Your task to perform on an android device: all mails in gmail Image 0: 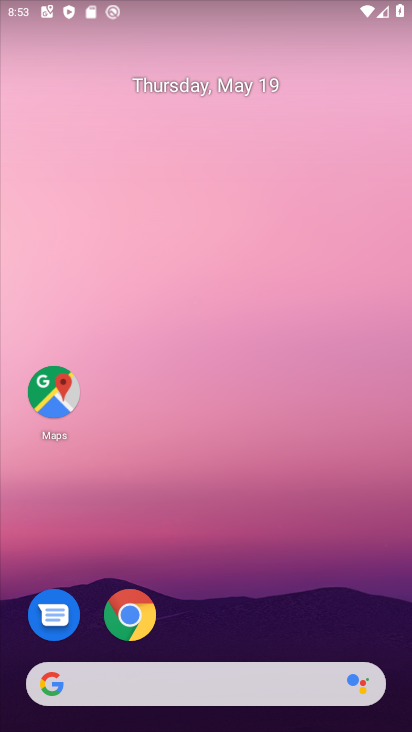
Step 0: press home button
Your task to perform on an android device: all mails in gmail Image 1: 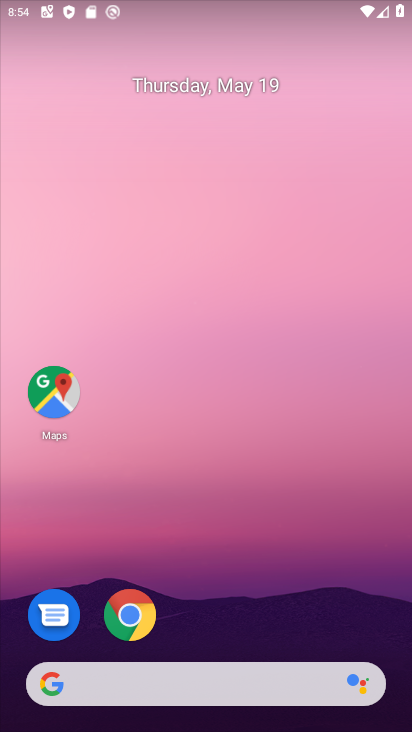
Step 1: drag from (312, 525) to (247, 6)
Your task to perform on an android device: all mails in gmail Image 2: 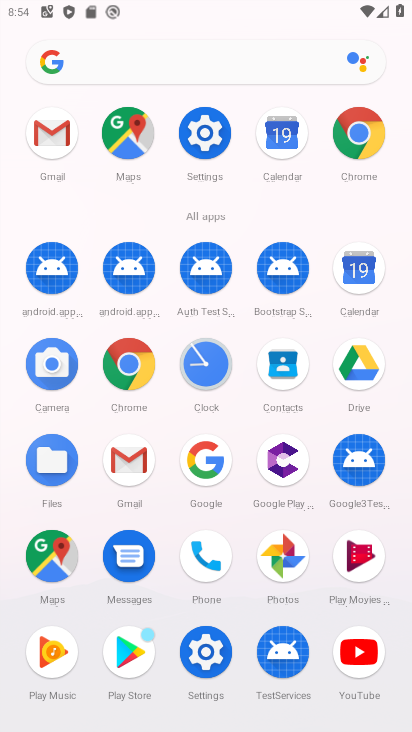
Step 2: click (58, 154)
Your task to perform on an android device: all mails in gmail Image 3: 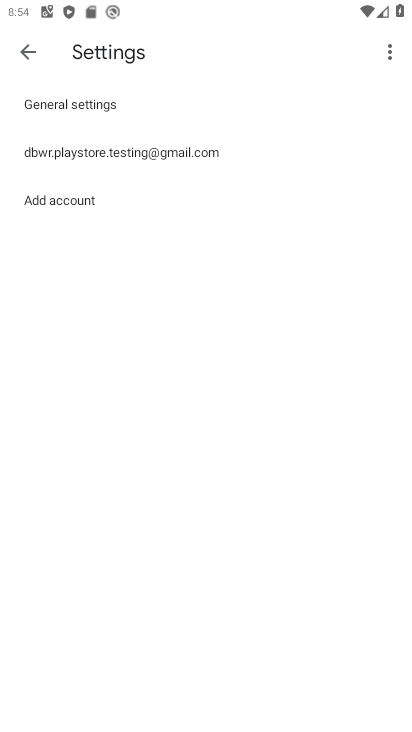
Step 3: click (35, 65)
Your task to perform on an android device: all mails in gmail Image 4: 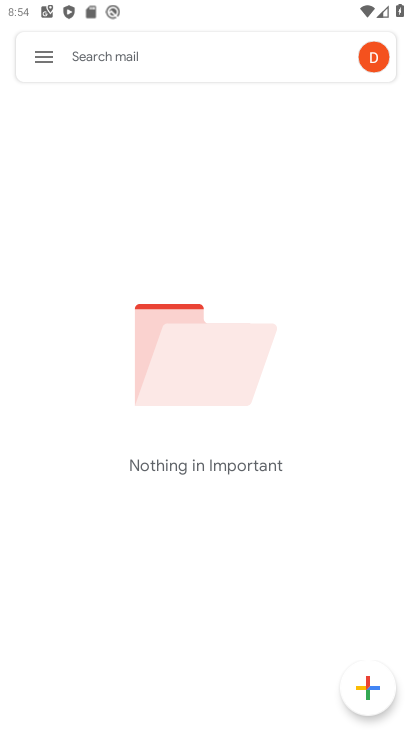
Step 4: click (35, 65)
Your task to perform on an android device: all mails in gmail Image 5: 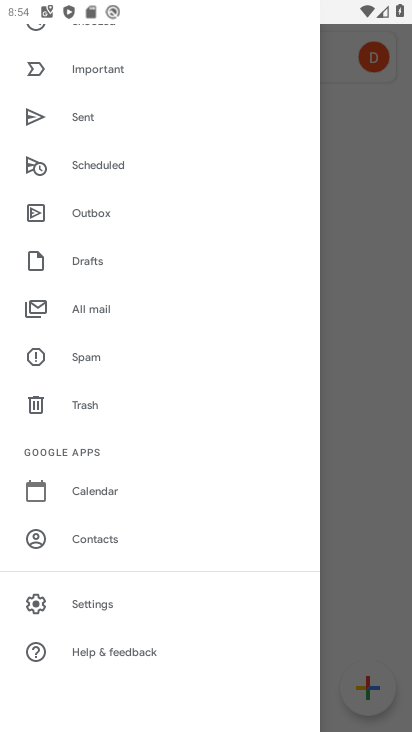
Step 5: drag from (121, 167) to (125, 301)
Your task to perform on an android device: all mails in gmail Image 6: 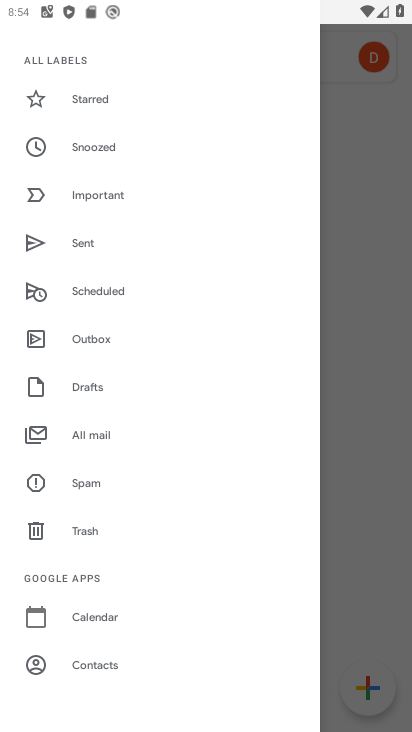
Step 6: click (112, 439)
Your task to perform on an android device: all mails in gmail Image 7: 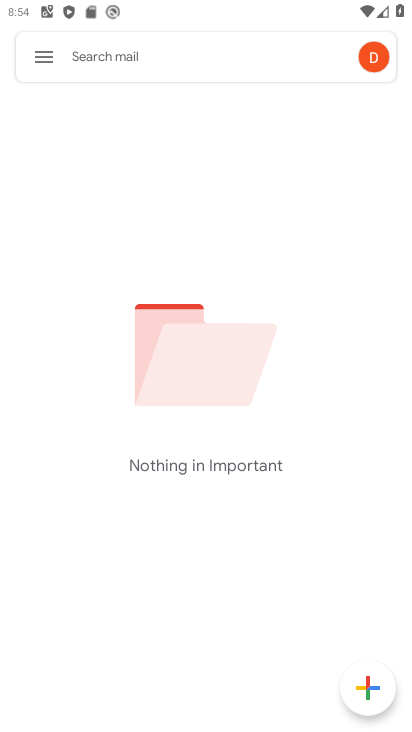
Step 7: click (112, 439)
Your task to perform on an android device: all mails in gmail Image 8: 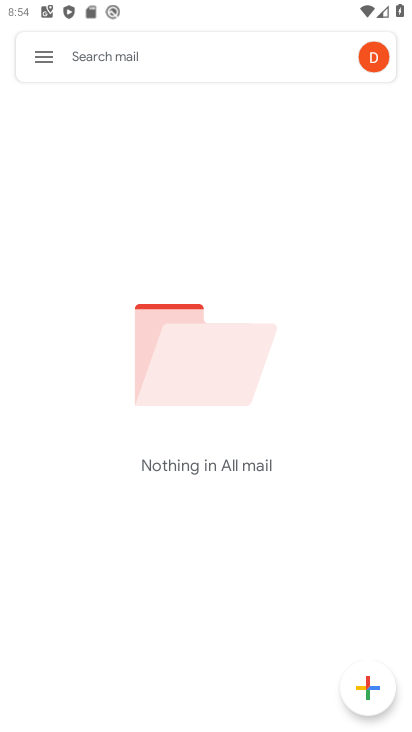
Step 8: task complete